Your task to perform on an android device: set the stopwatch Image 0: 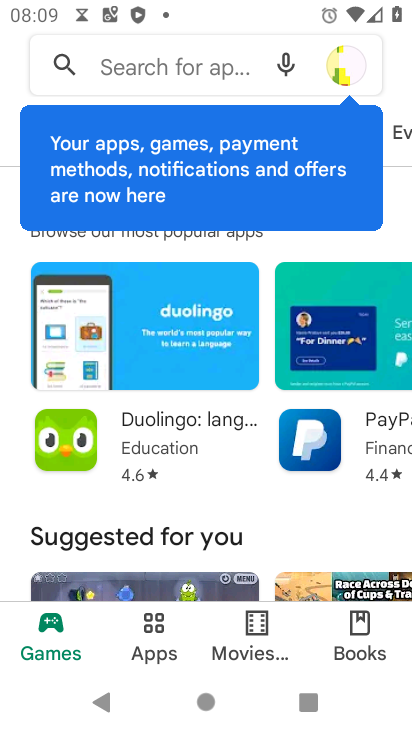
Step 0: press home button
Your task to perform on an android device: set the stopwatch Image 1: 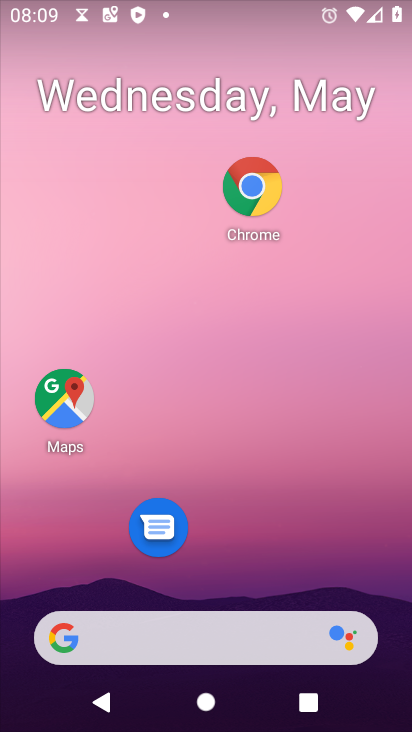
Step 1: drag from (284, 552) to (321, 133)
Your task to perform on an android device: set the stopwatch Image 2: 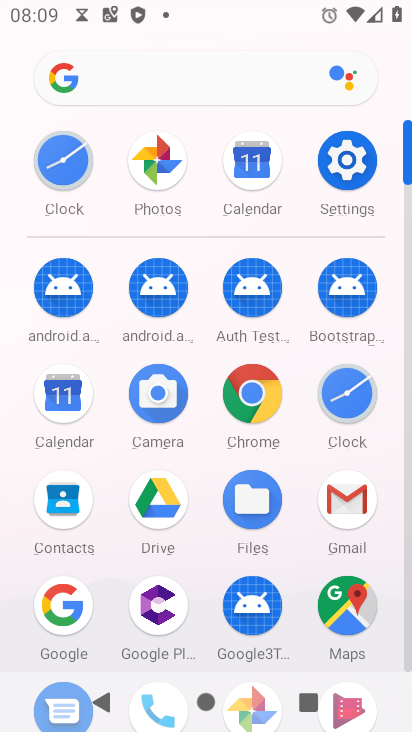
Step 2: click (352, 395)
Your task to perform on an android device: set the stopwatch Image 3: 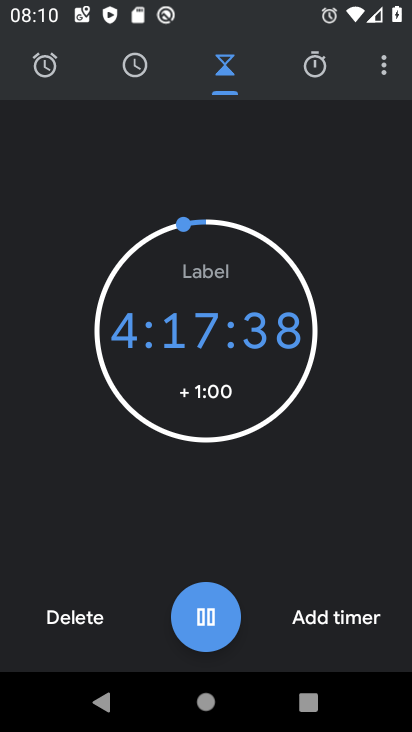
Step 3: click (313, 69)
Your task to perform on an android device: set the stopwatch Image 4: 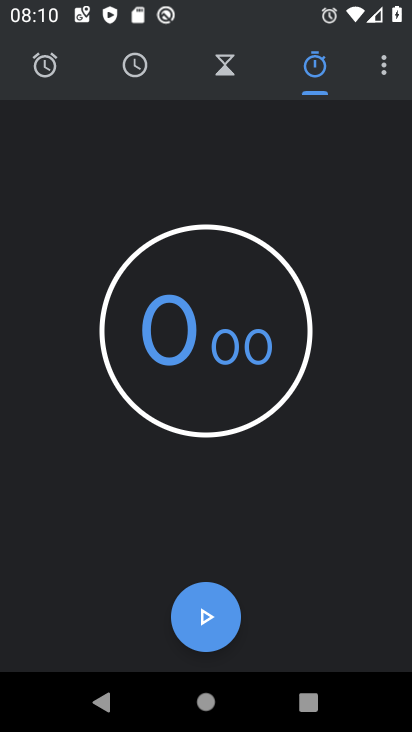
Step 4: click (196, 626)
Your task to perform on an android device: set the stopwatch Image 5: 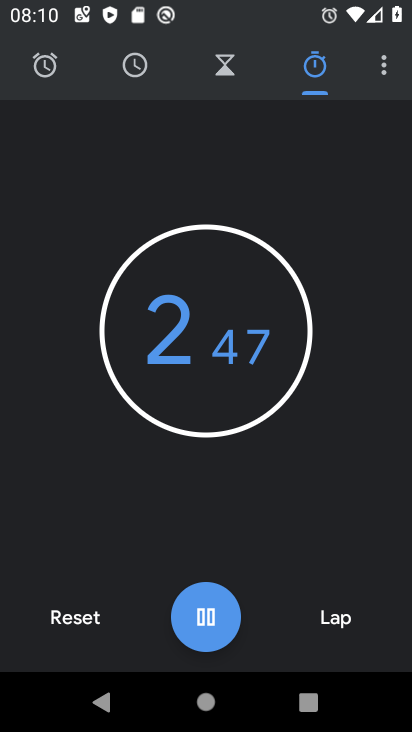
Step 5: task complete